Your task to perform on an android device: open app "NewsBreak: Local News & Alerts" (install if not already installed) Image 0: 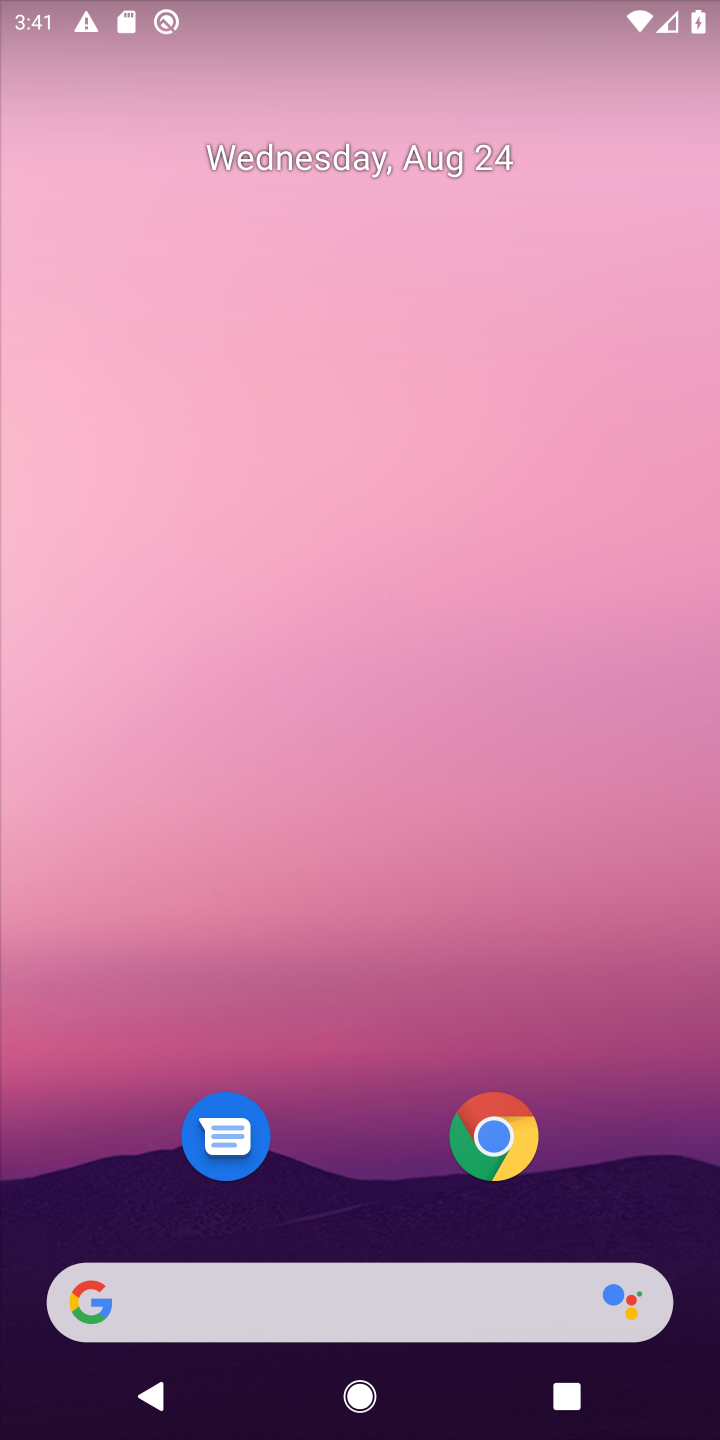
Step 0: press home button
Your task to perform on an android device: open app "NewsBreak: Local News & Alerts" (install if not already installed) Image 1: 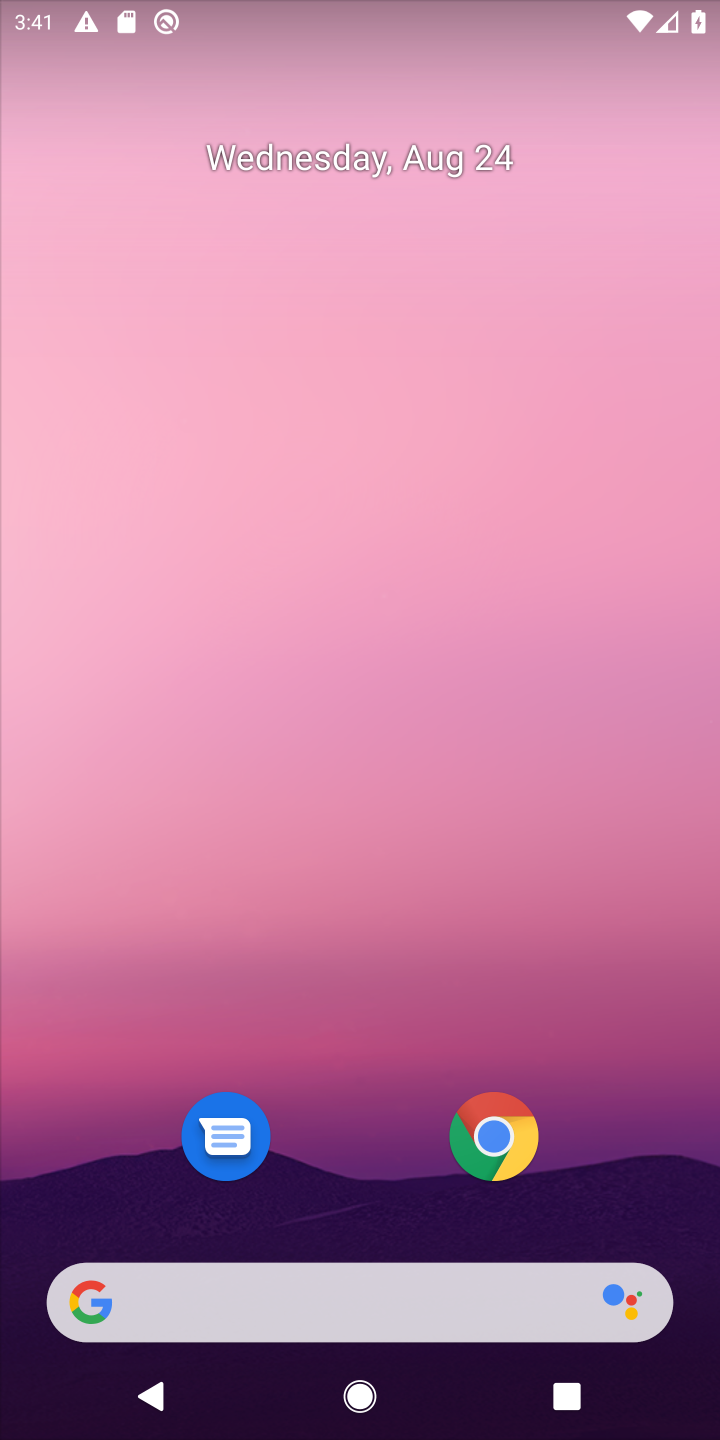
Step 1: click (324, 4)
Your task to perform on an android device: open app "NewsBreak: Local News & Alerts" (install if not already installed) Image 2: 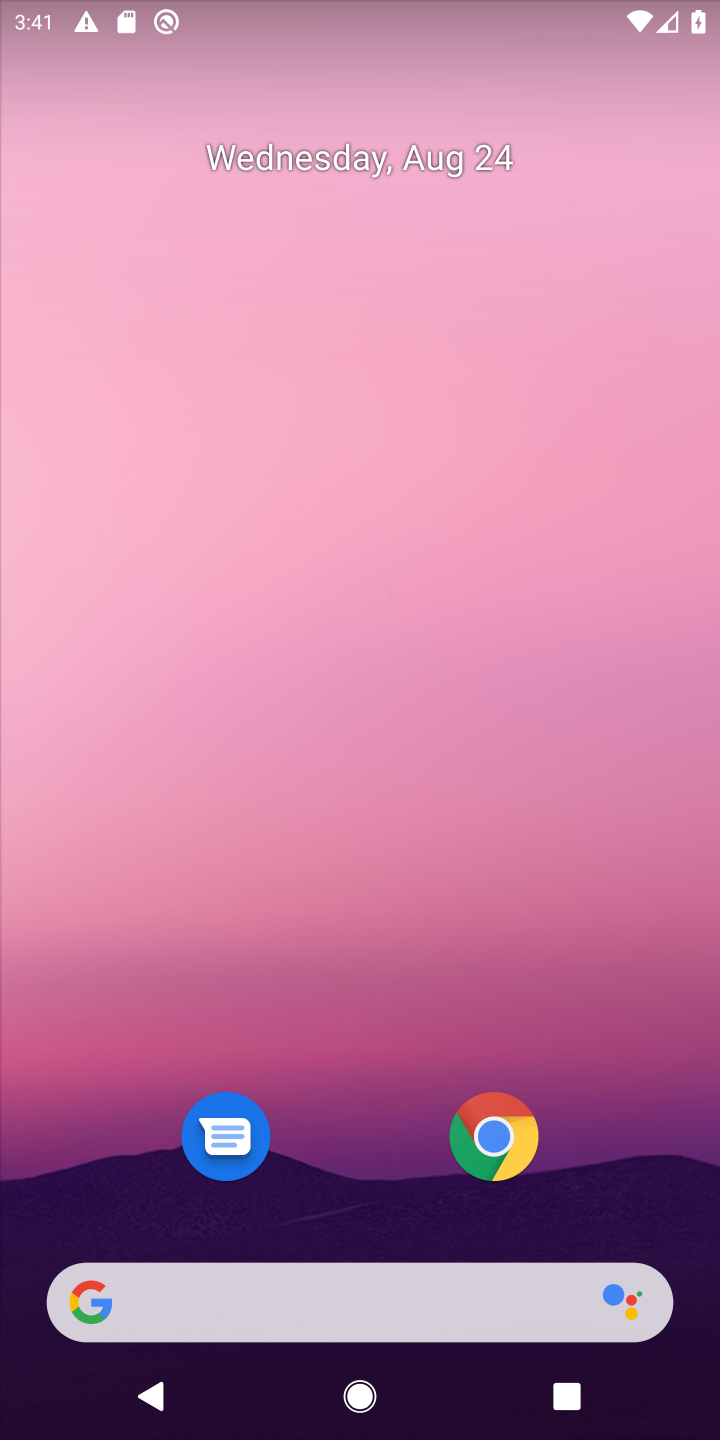
Step 2: drag from (355, 998) to (400, 8)
Your task to perform on an android device: open app "NewsBreak: Local News & Alerts" (install if not already installed) Image 3: 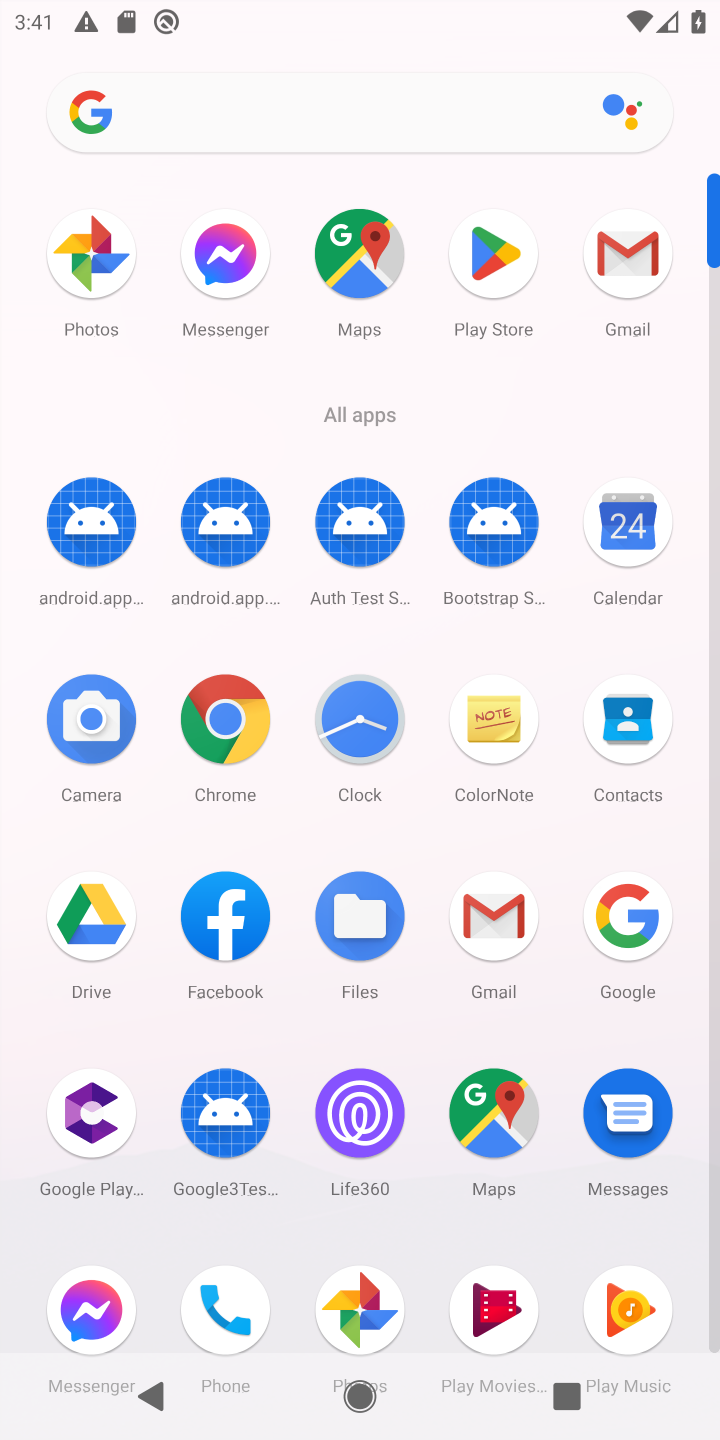
Step 3: click (494, 243)
Your task to perform on an android device: open app "NewsBreak: Local News & Alerts" (install if not already installed) Image 4: 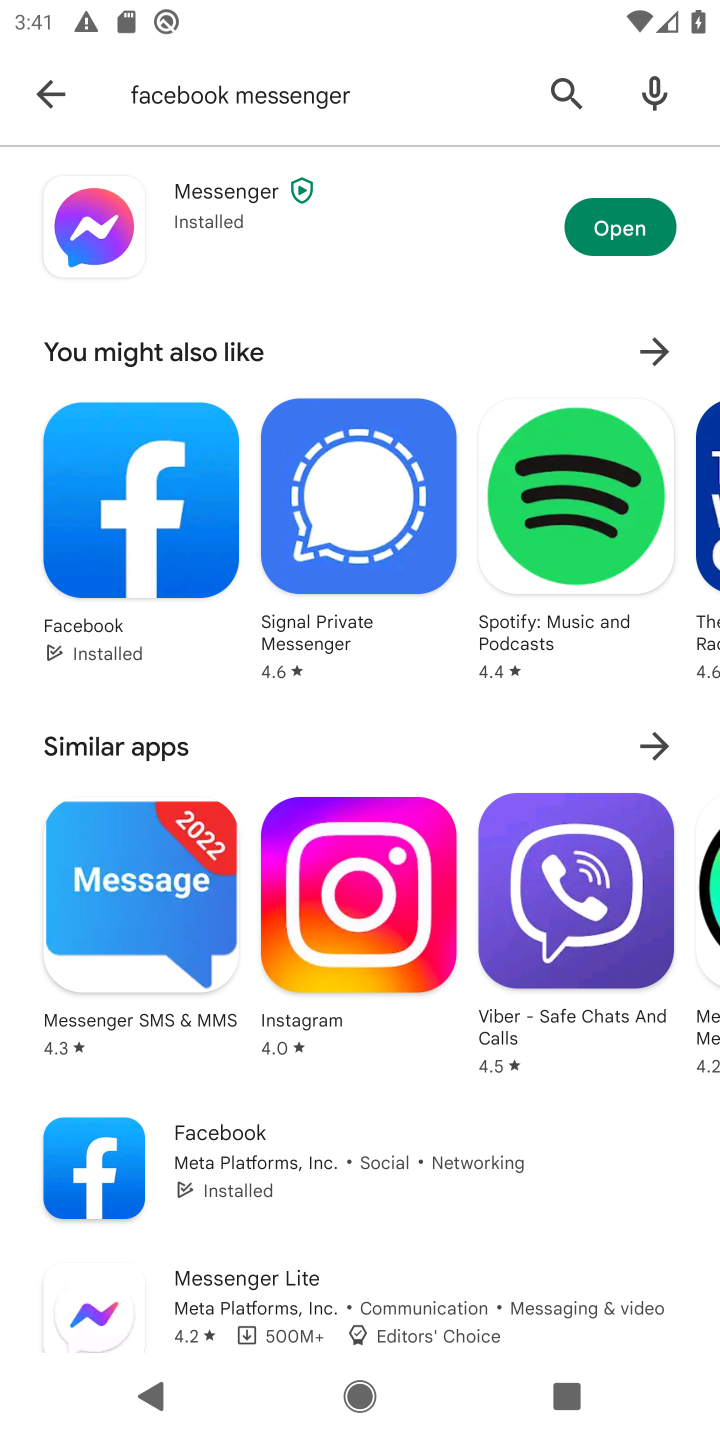
Step 4: click (45, 95)
Your task to perform on an android device: open app "NewsBreak: Local News & Alerts" (install if not already installed) Image 5: 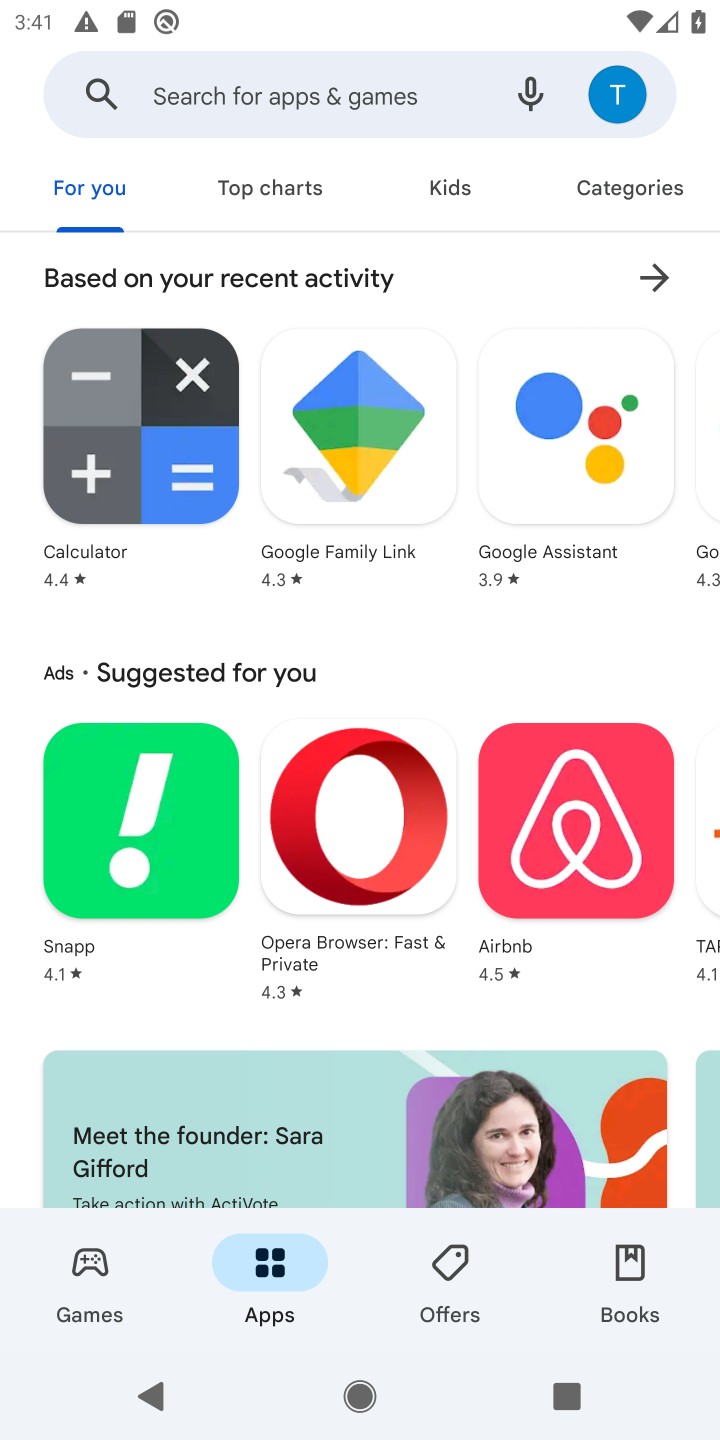
Step 5: click (155, 104)
Your task to perform on an android device: open app "NewsBreak: Local News & Alerts" (install if not already installed) Image 6: 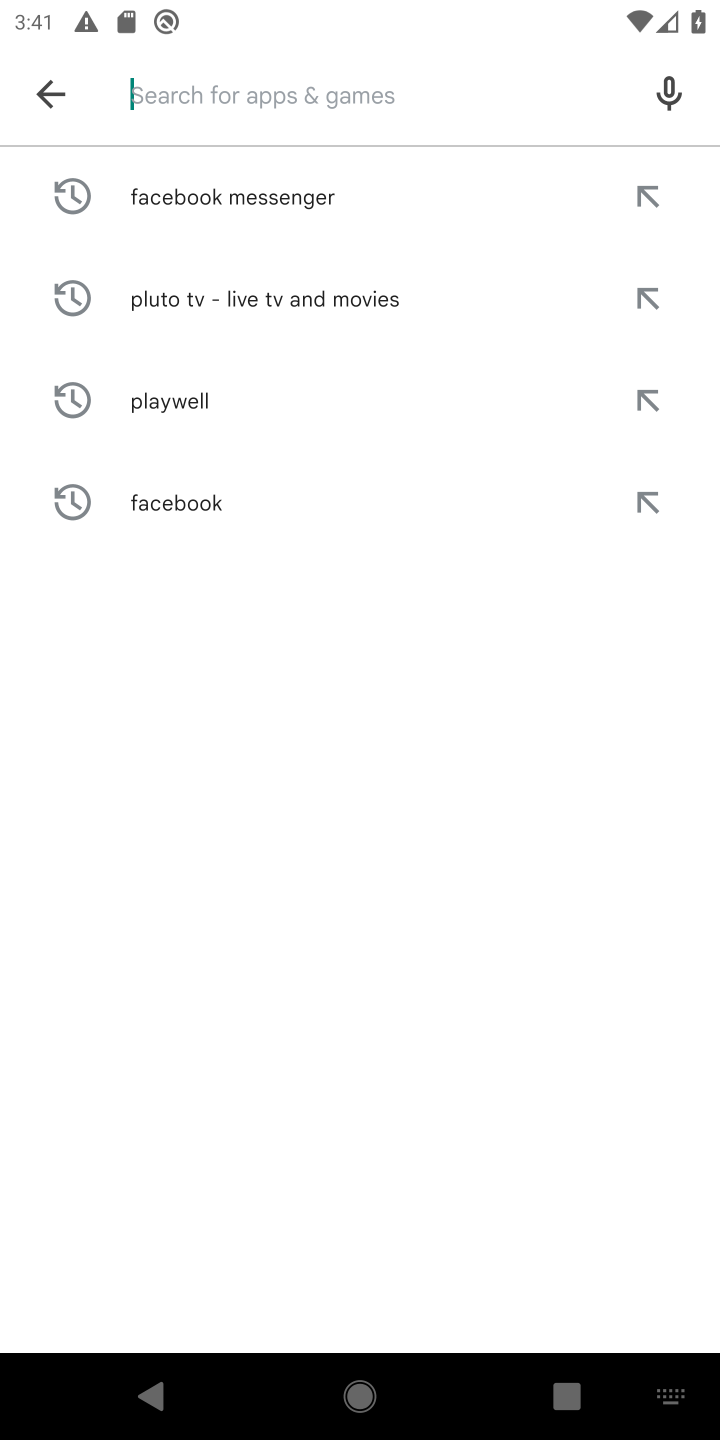
Step 6: type "NewsBreak: Local News & Alerts"
Your task to perform on an android device: open app "NewsBreak: Local News & Alerts" (install if not already installed) Image 7: 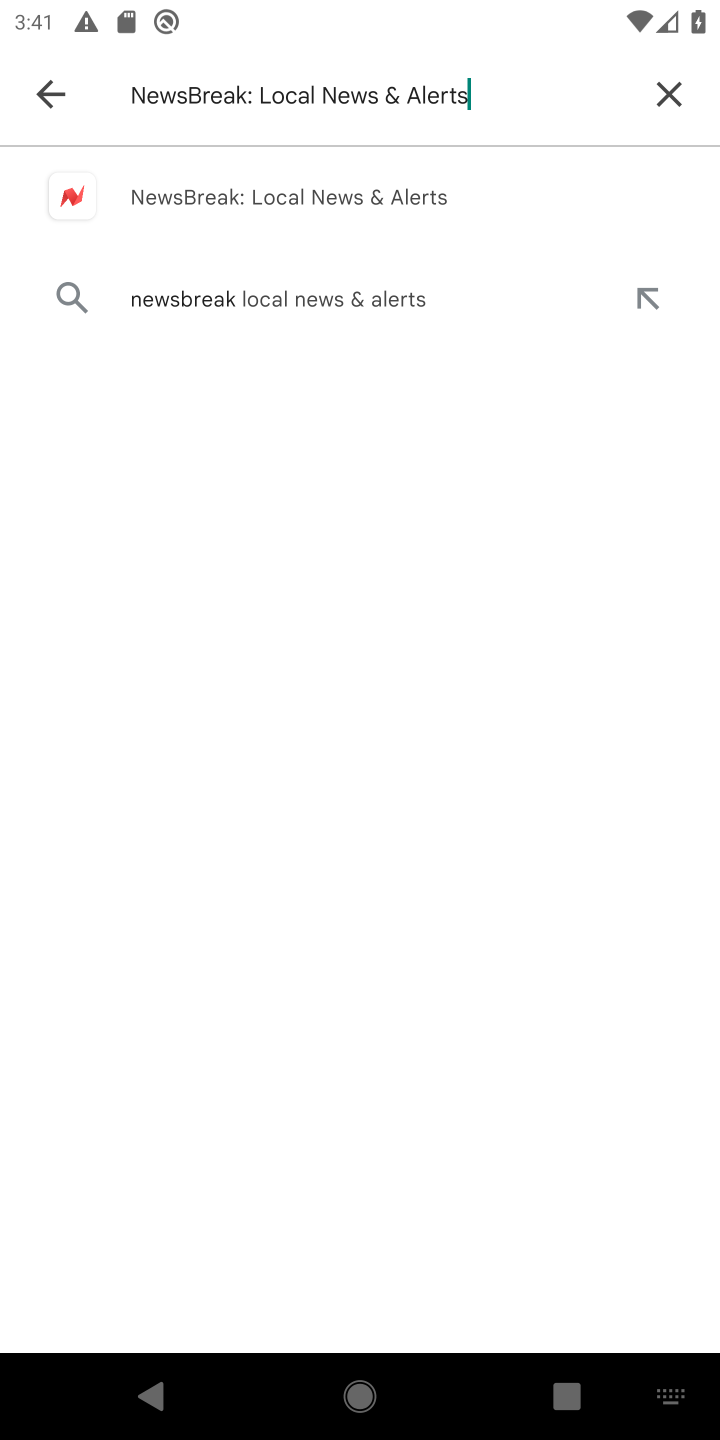
Step 7: click (266, 201)
Your task to perform on an android device: open app "NewsBreak: Local News & Alerts" (install if not already installed) Image 8: 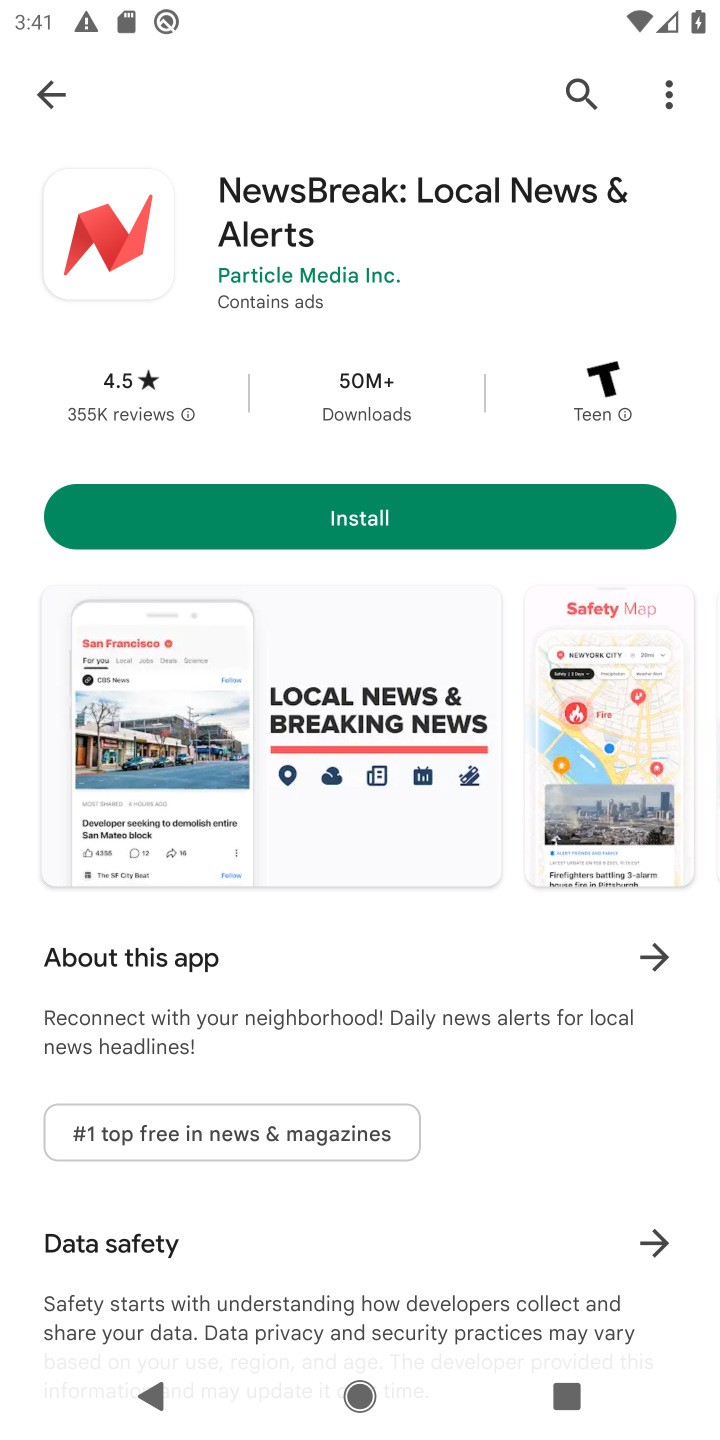
Step 8: click (347, 511)
Your task to perform on an android device: open app "NewsBreak: Local News & Alerts" (install if not already installed) Image 9: 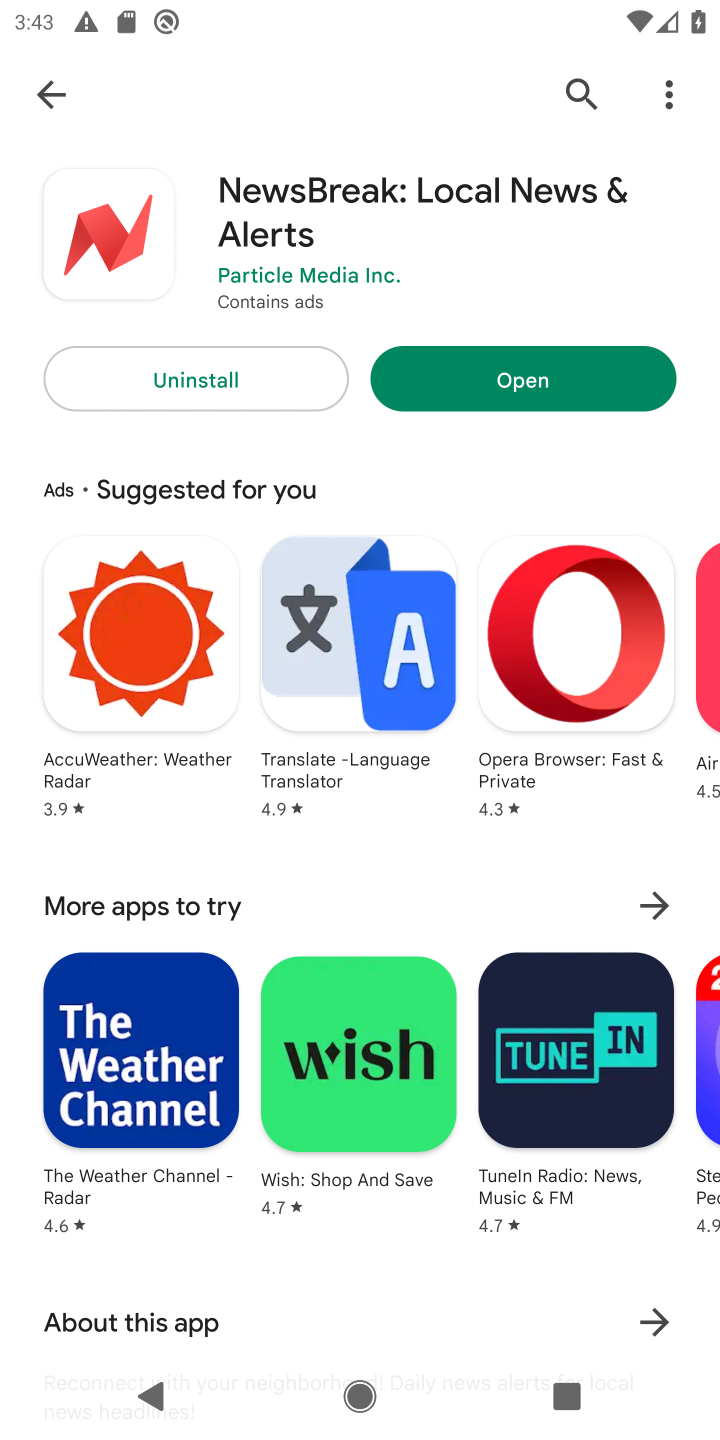
Step 9: click (500, 364)
Your task to perform on an android device: open app "NewsBreak: Local News & Alerts" (install if not already installed) Image 10: 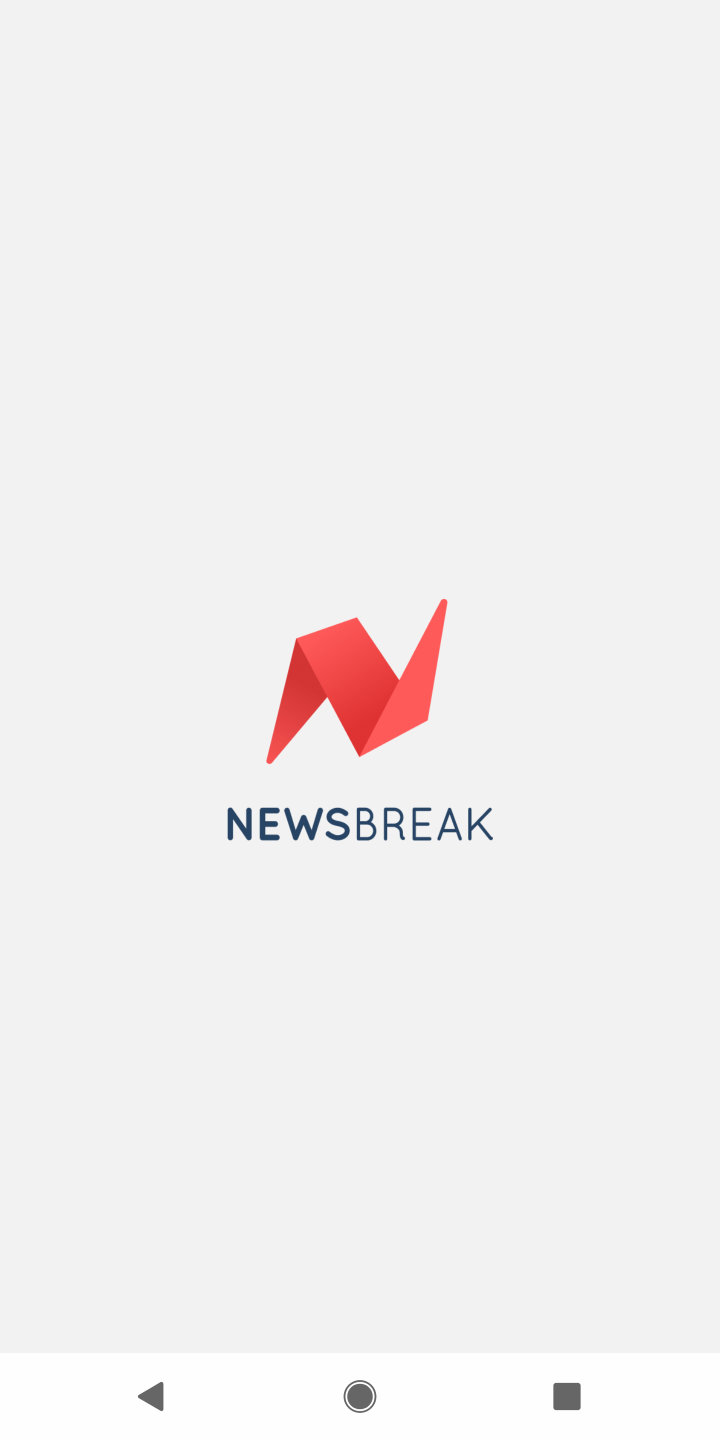
Step 10: task complete